Your task to perform on an android device: Search for sushi restaurants on Maps Image 0: 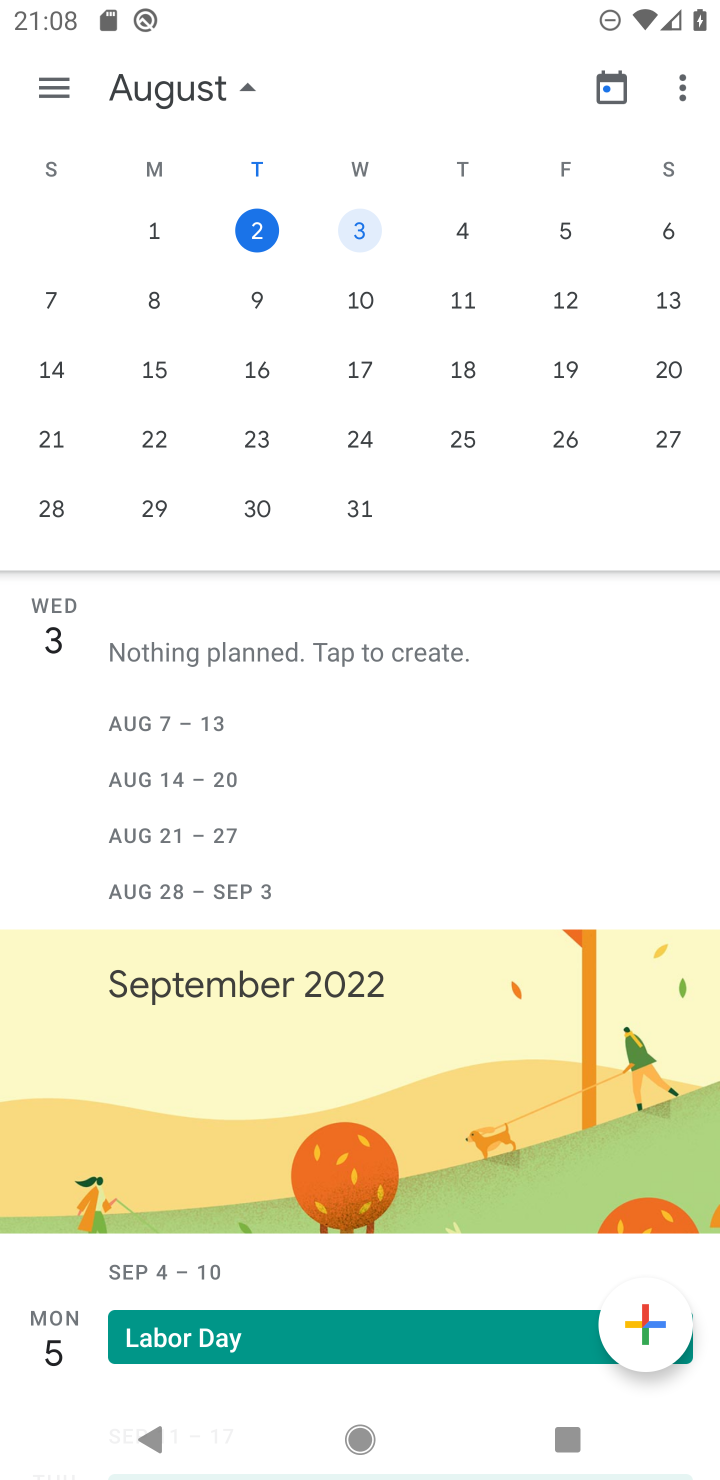
Step 0: press home button
Your task to perform on an android device: Search for sushi restaurants on Maps Image 1: 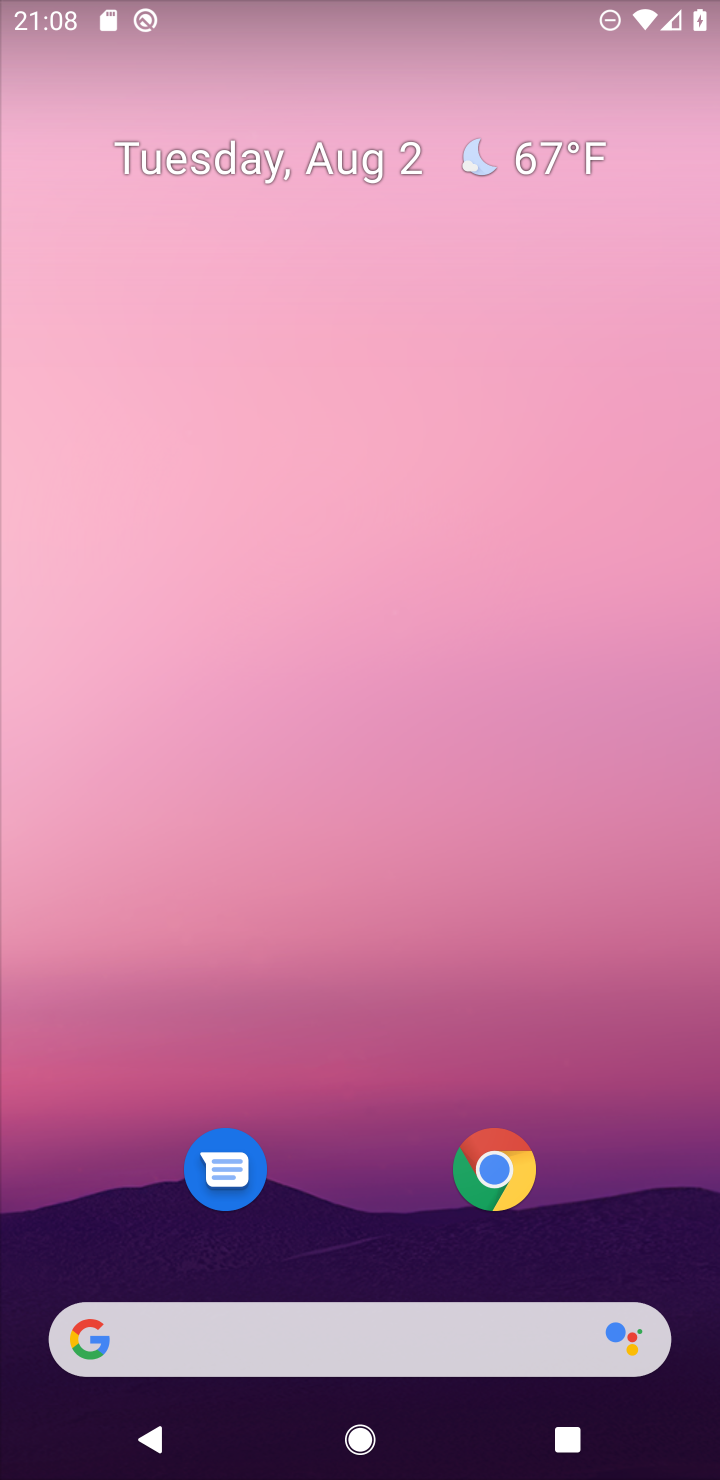
Step 1: drag from (358, 1051) to (358, 77)
Your task to perform on an android device: Search for sushi restaurants on Maps Image 2: 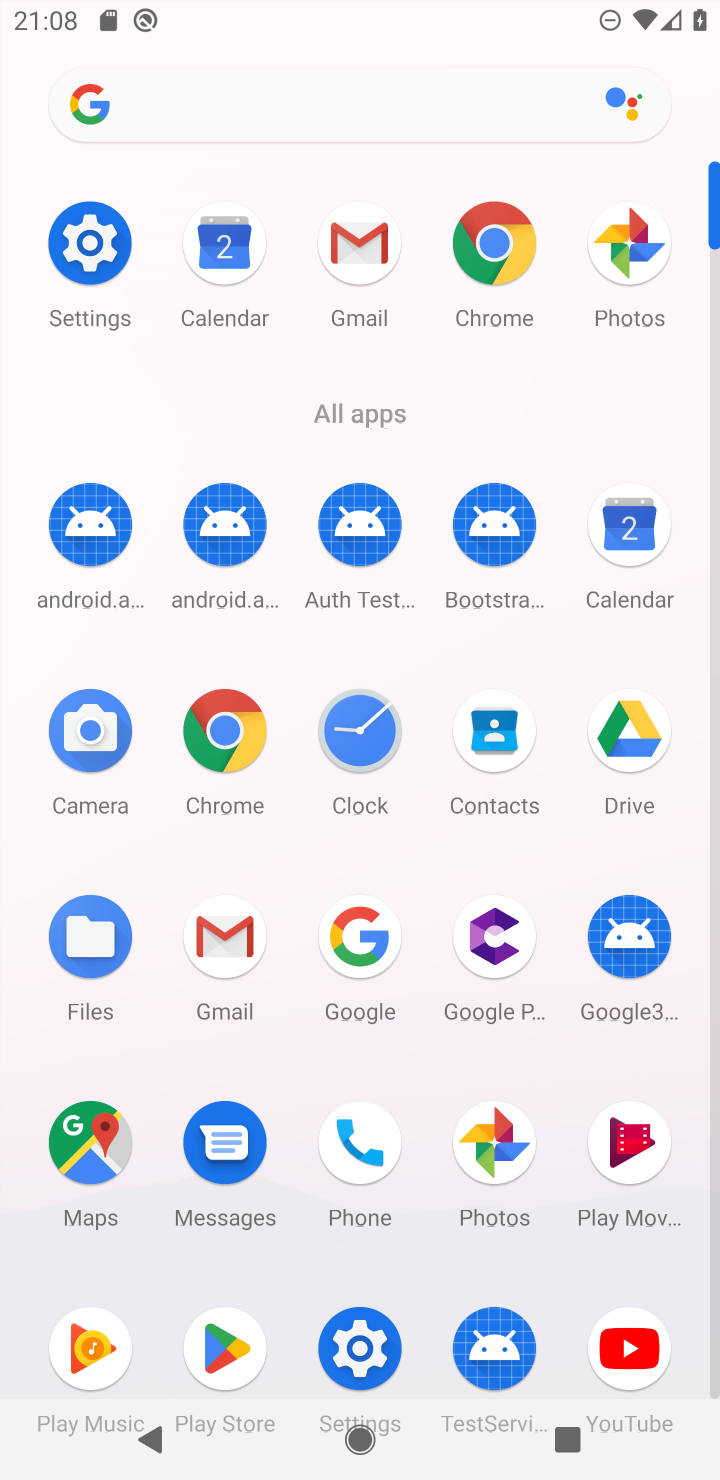
Step 2: click (99, 1127)
Your task to perform on an android device: Search for sushi restaurants on Maps Image 3: 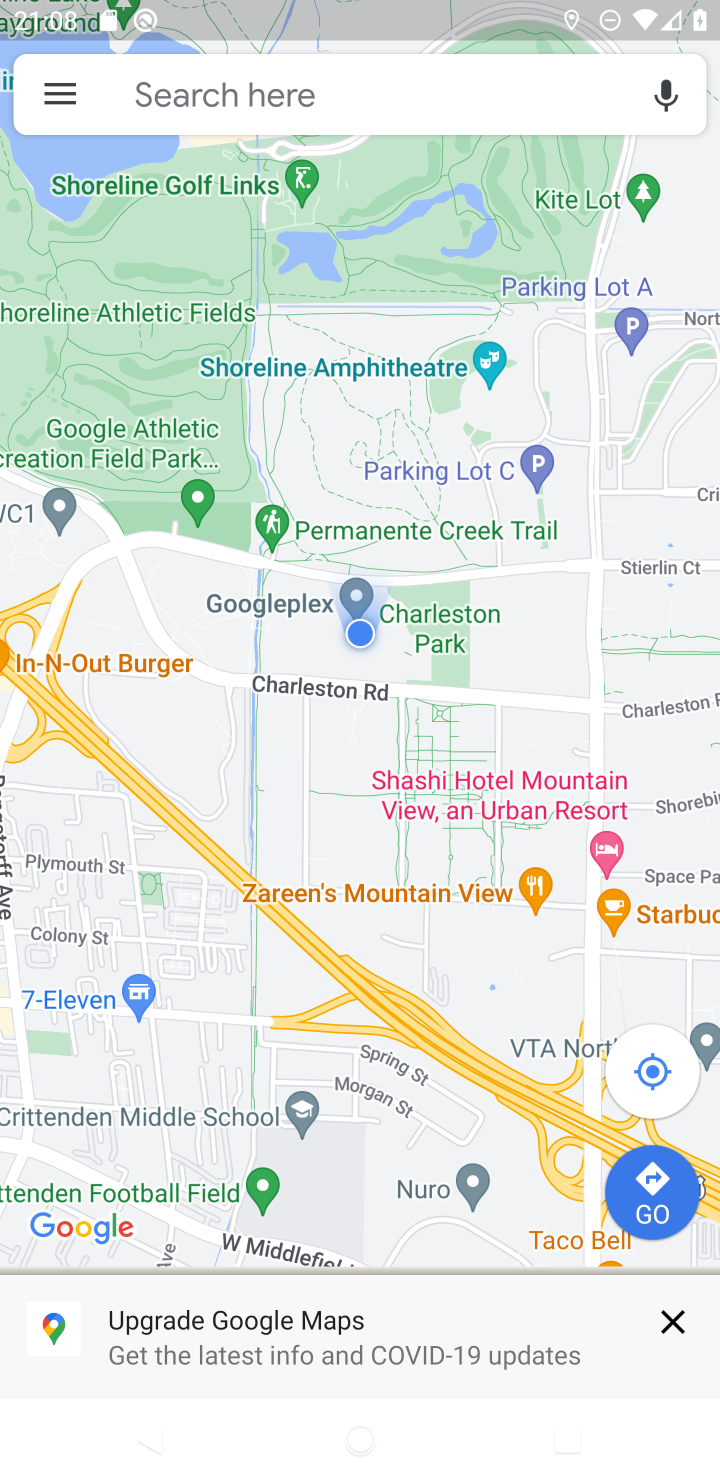
Step 3: click (384, 98)
Your task to perform on an android device: Search for sushi restaurants on Maps Image 4: 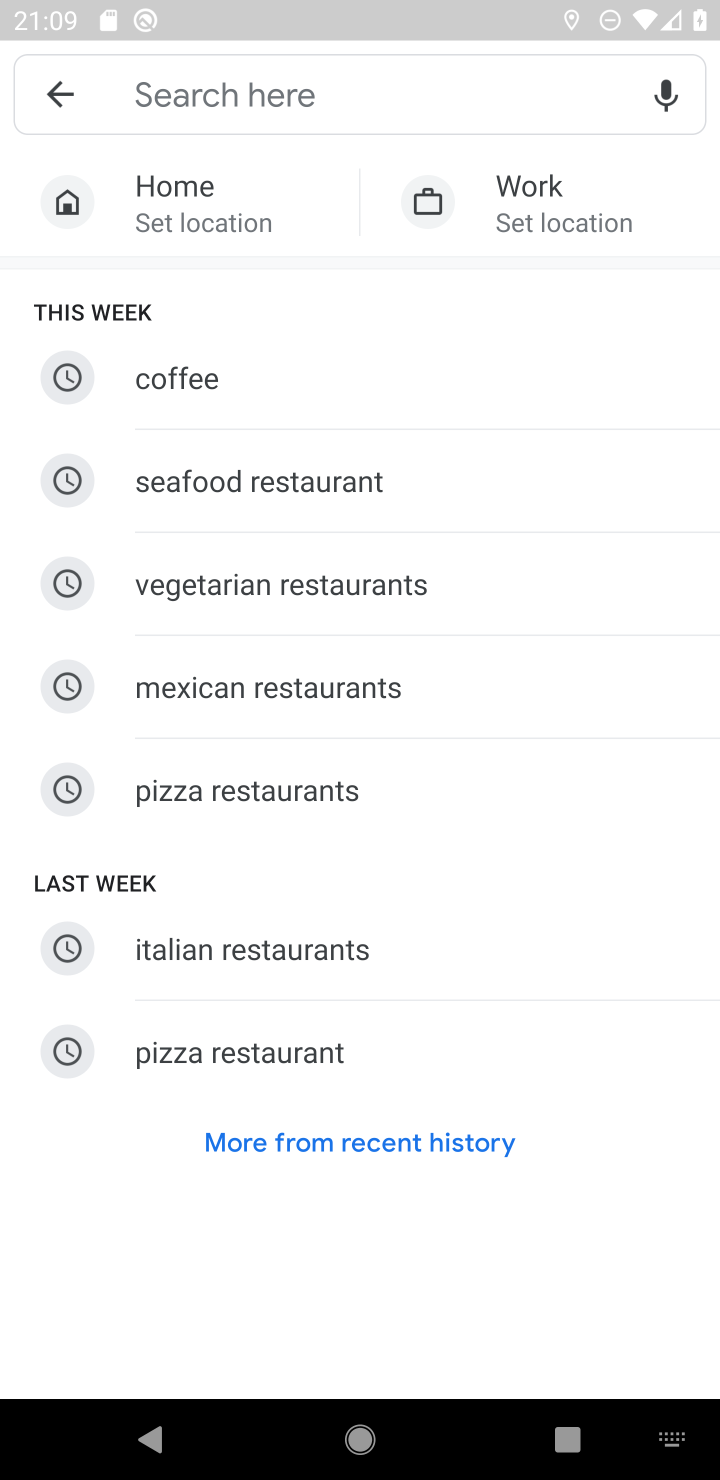
Step 4: type "sushirestaurants "
Your task to perform on an android device: Search for sushi restaurants on Maps Image 5: 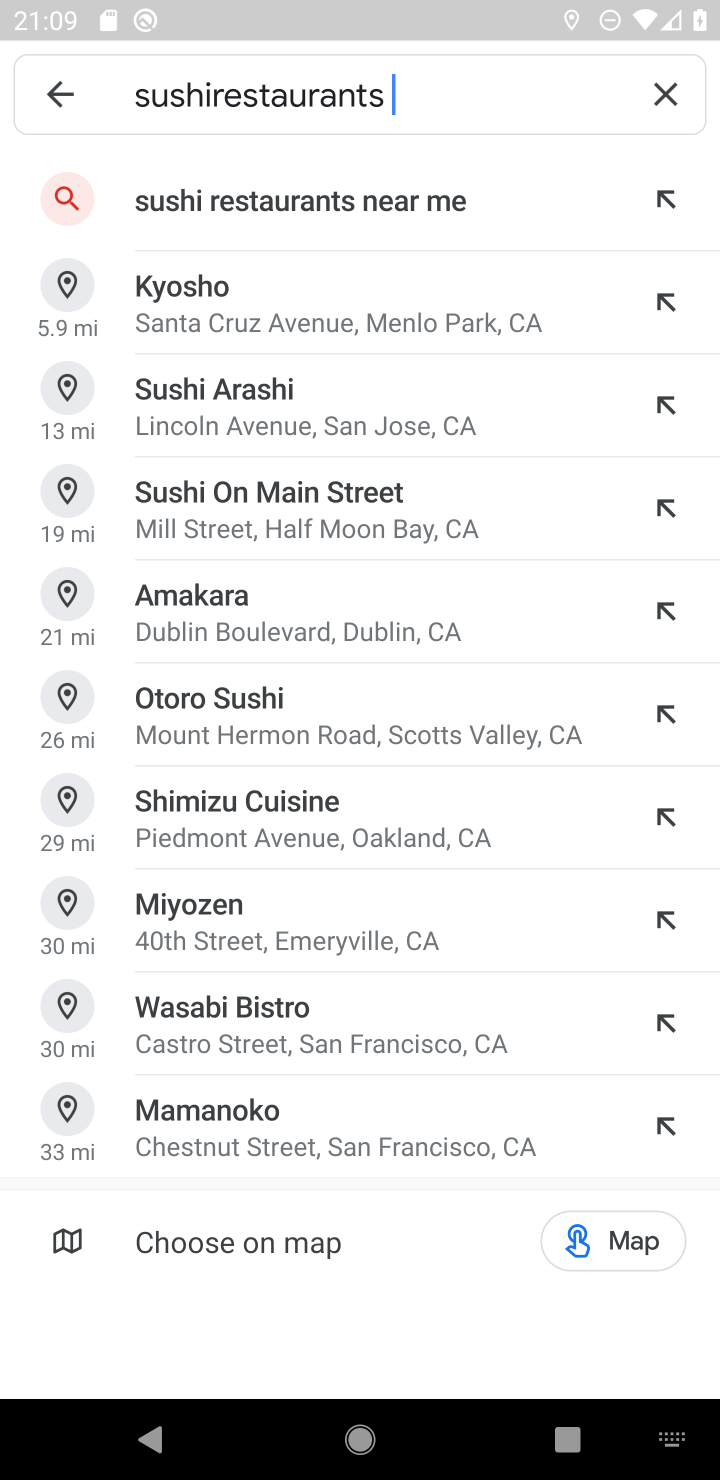
Step 5: click (301, 198)
Your task to perform on an android device: Search for sushi restaurants on Maps Image 6: 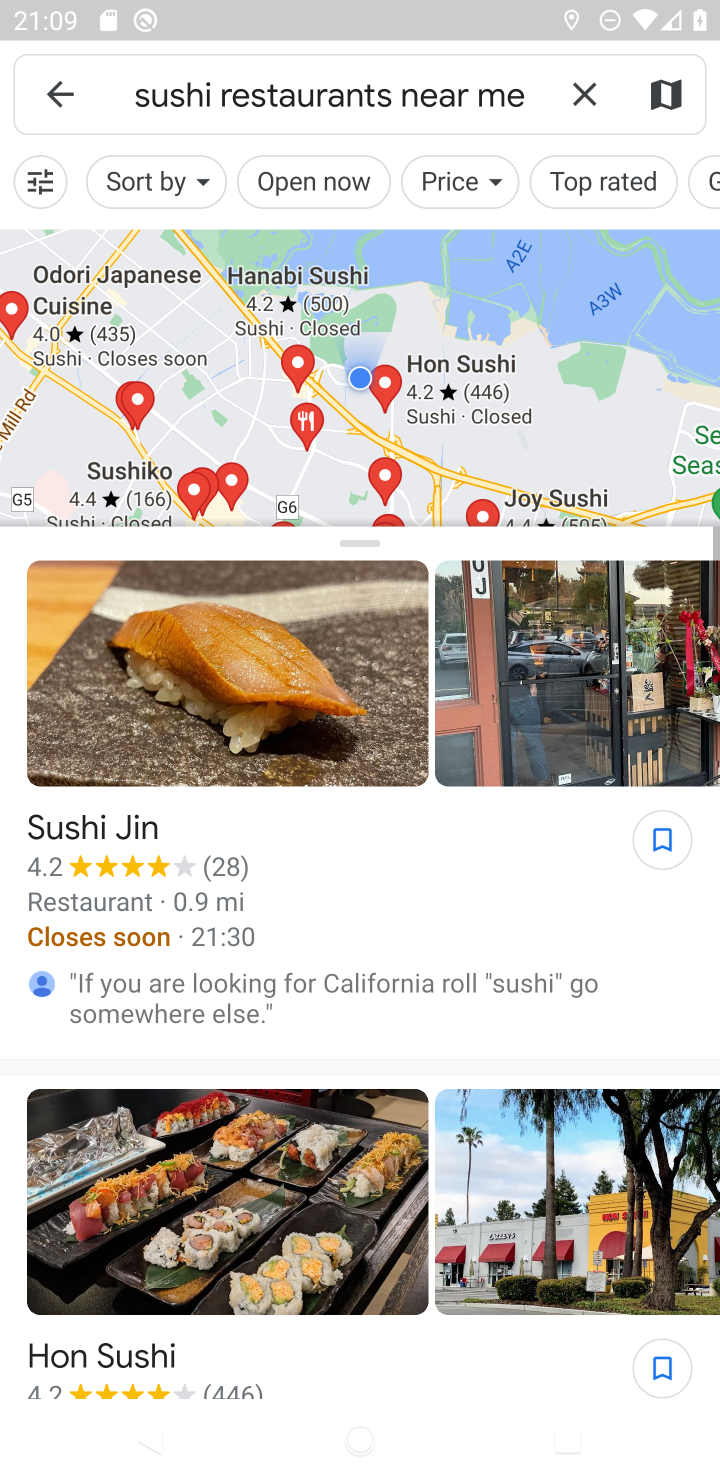
Step 6: task complete